Your task to perform on an android device: Open Chrome and go to settings Image 0: 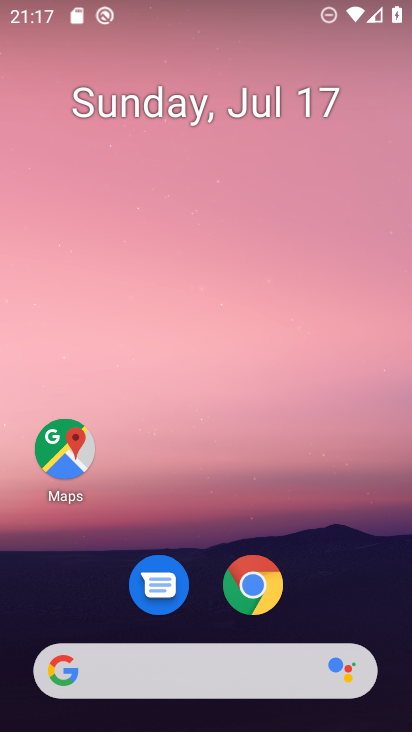
Step 0: click (245, 585)
Your task to perform on an android device: Open Chrome and go to settings Image 1: 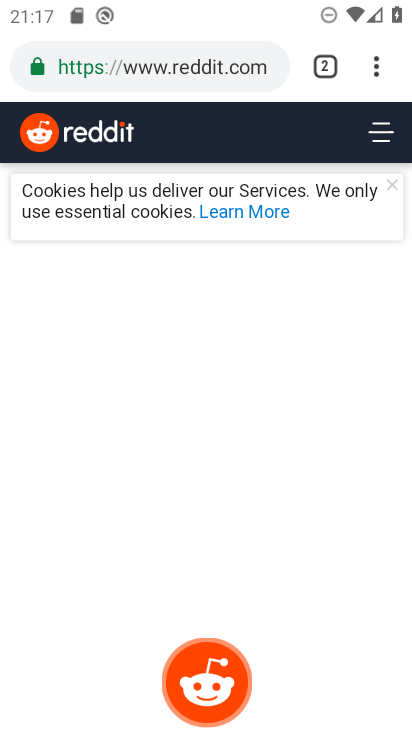
Step 1: task complete